Your task to perform on an android device: turn notification dots off Image 0: 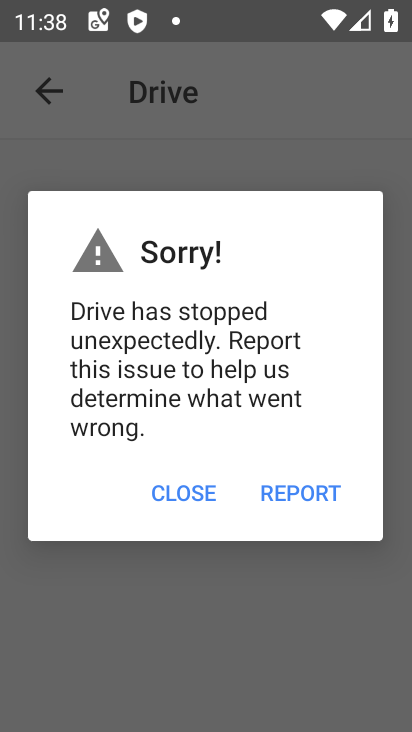
Step 0: press home button
Your task to perform on an android device: turn notification dots off Image 1: 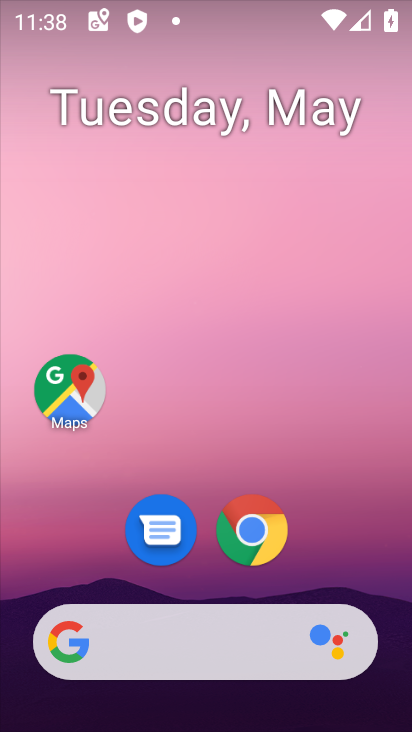
Step 1: drag from (190, 574) to (260, 210)
Your task to perform on an android device: turn notification dots off Image 2: 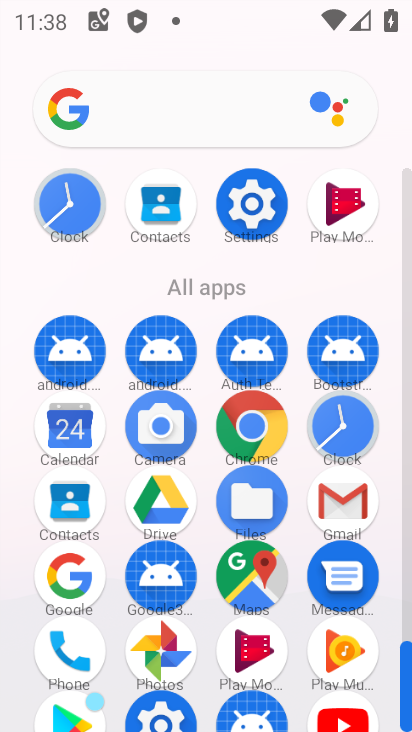
Step 2: click (252, 203)
Your task to perform on an android device: turn notification dots off Image 3: 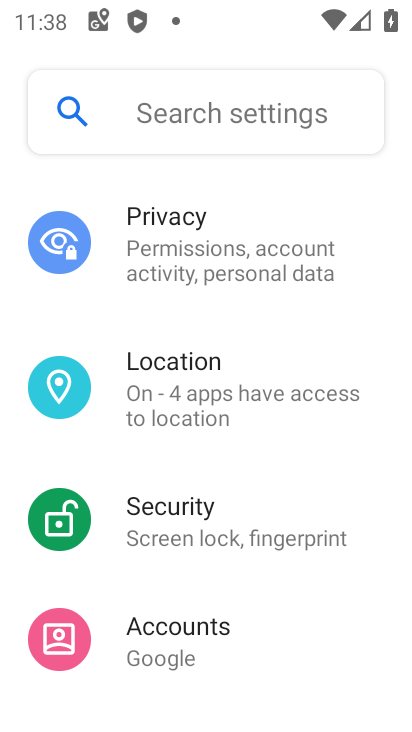
Step 3: click (234, 575)
Your task to perform on an android device: turn notification dots off Image 4: 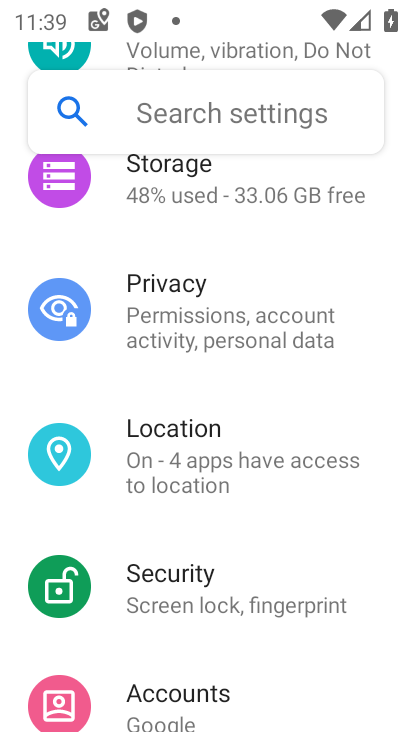
Step 4: drag from (220, 253) to (194, 579)
Your task to perform on an android device: turn notification dots off Image 5: 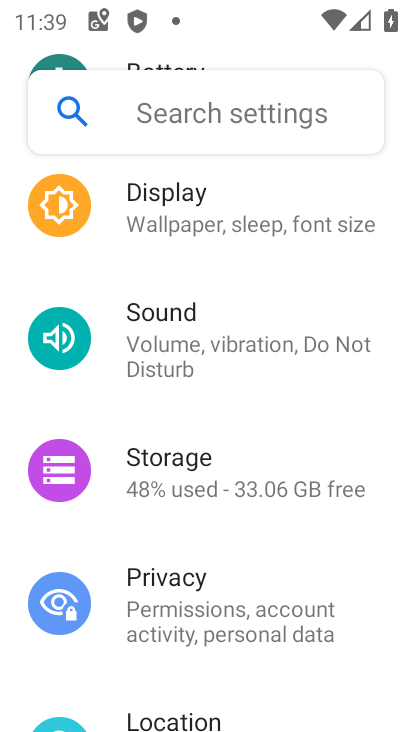
Step 5: drag from (222, 196) to (201, 628)
Your task to perform on an android device: turn notification dots off Image 6: 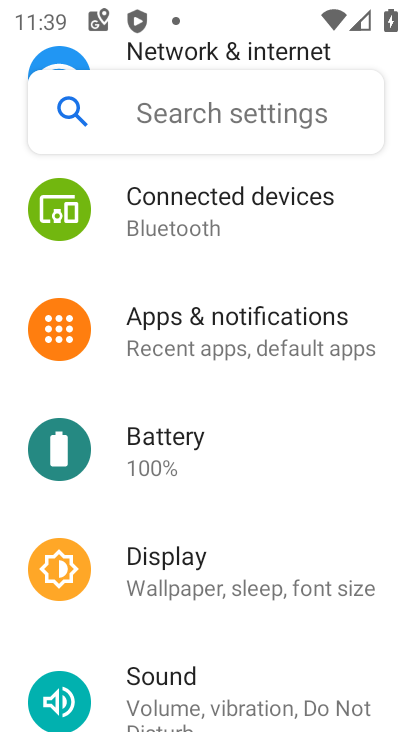
Step 6: click (244, 335)
Your task to perform on an android device: turn notification dots off Image 7: 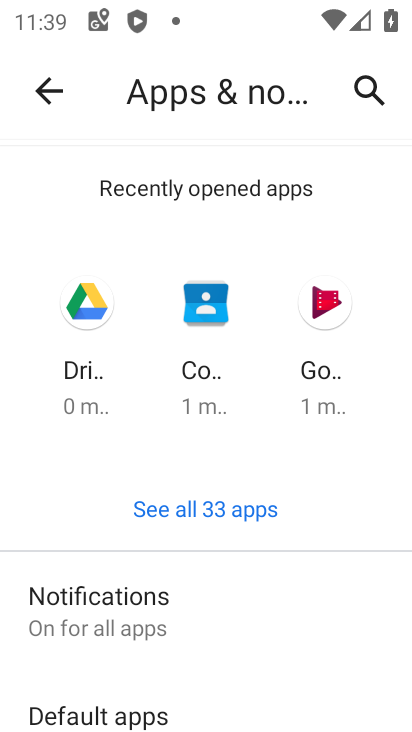
Step 7: drag from (187, 616) to (239, 174)
Your task to perform on an android device: turn notification dots off Image 8: 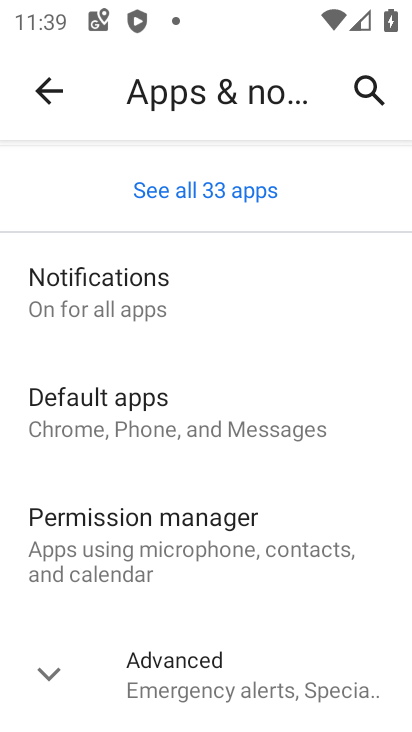
Step 8: click (163, 311)
Your task to perform on an android device: turn notification dots off Image 9: 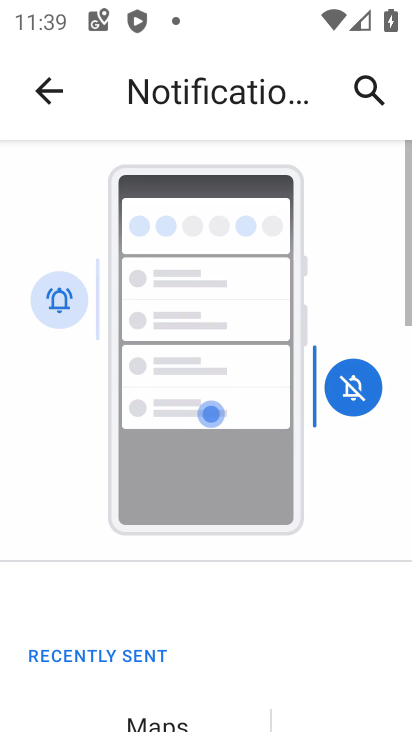
Step 9: drag from (199, 628) to (220, 201)
Your task to perform on an android device: turn notification dots off Image 10: 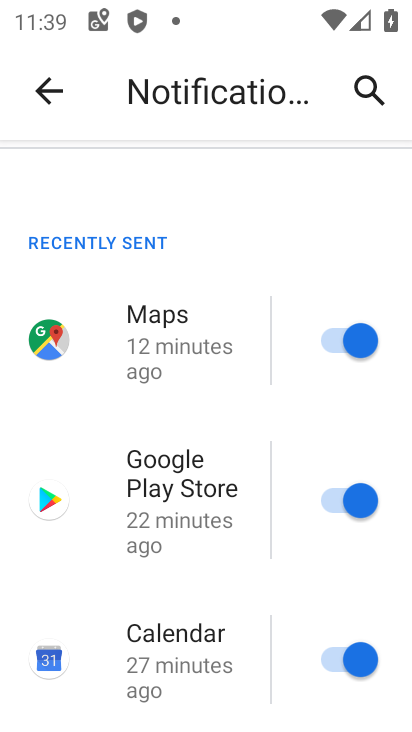
Step 10: drag from (232, 650) to (250, 194)
Your task to perform on an android device: turn notification dots off Image 11: 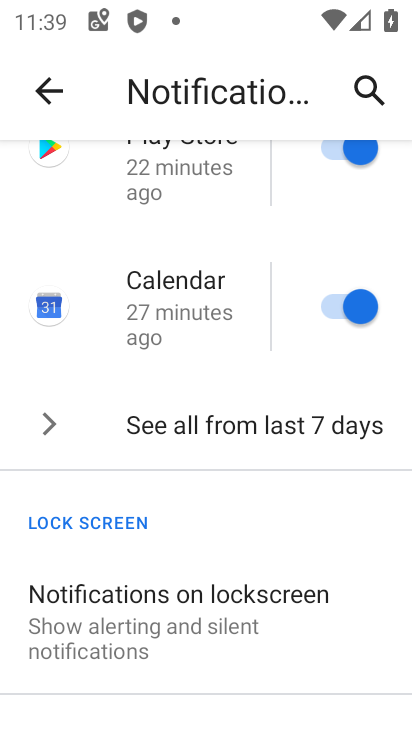
Step 11: drag from (170, 661) to (238, 327)
Your task to perform on an android device: turn notification dots off Image 12: 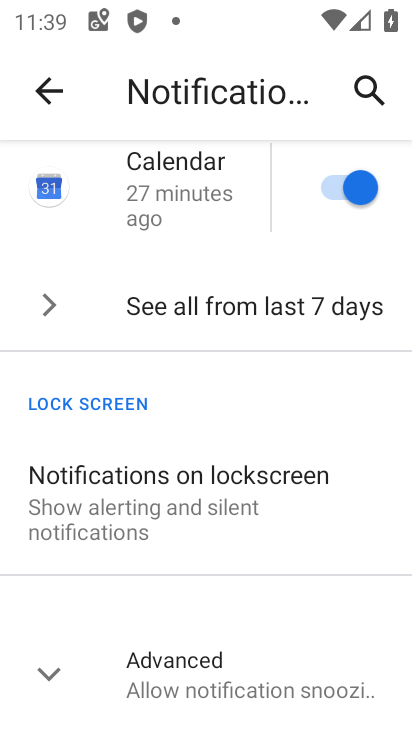
Step 12: click (55, 662)
Your task to perform on an android device: turn notification dots off Image 13: 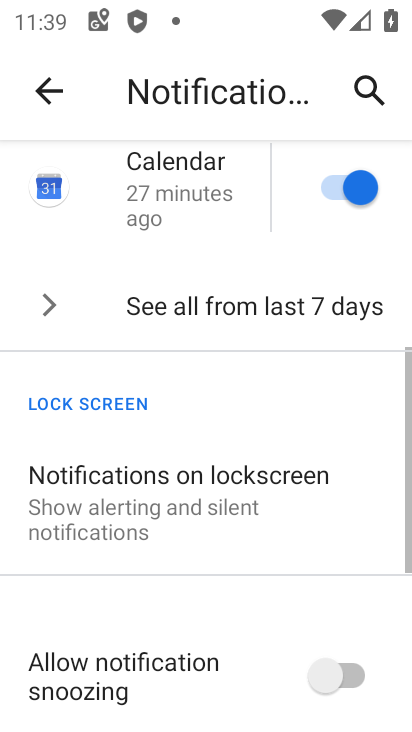
Step 13: drag from (234, 651) to (243, 286)
Your task to perform on an android device: turn notification dots off Image 14: 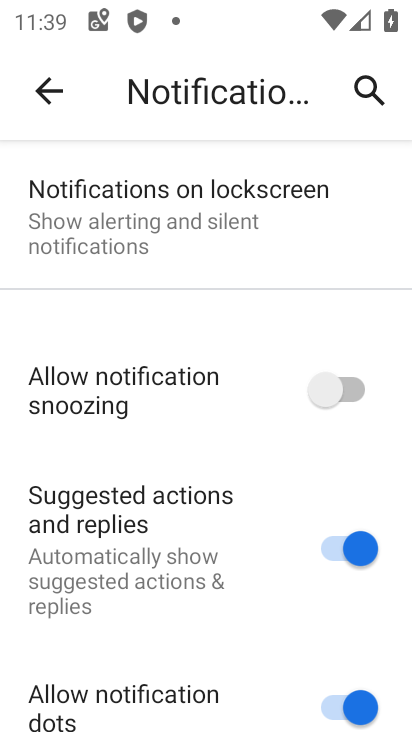
Step 14: drag from (214, 642) to (245, 332)
Your task to perform on an android device: turn notification dots off Image 15: 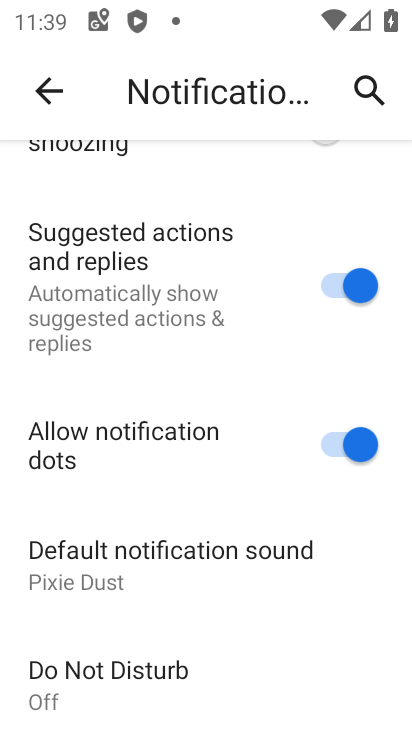
Step 15: click (330, 445)
Your task to perform on an android device: turn notification dots off Image 16: 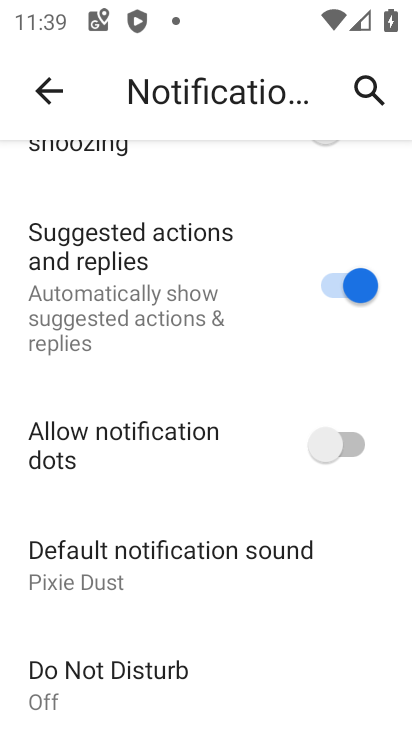
Step 16: task complete